Your task to perform on an android device: toggle location history Image 0: 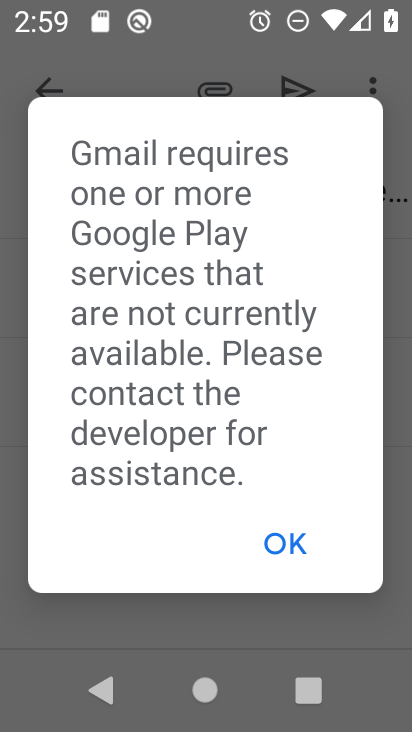
Step 0: press home button
Your task to perform on an android device: toggle location history Image 1: 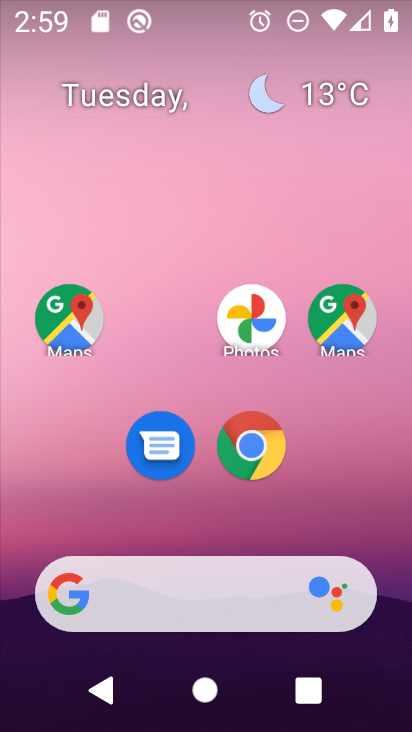
Step 1: drag from (372, 529) to (386, 203)
Your task to perform on an android device: toggle location history Image 2: 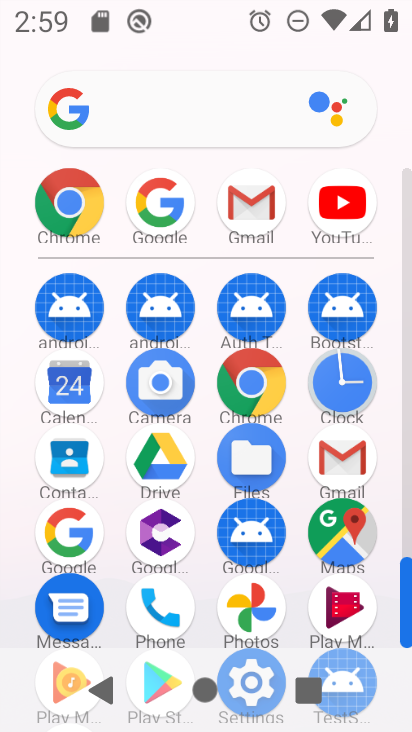
Step 2: drag from (205, 465) to (208, 233)
Your task to perform on an android device: toggle location history Image 3: 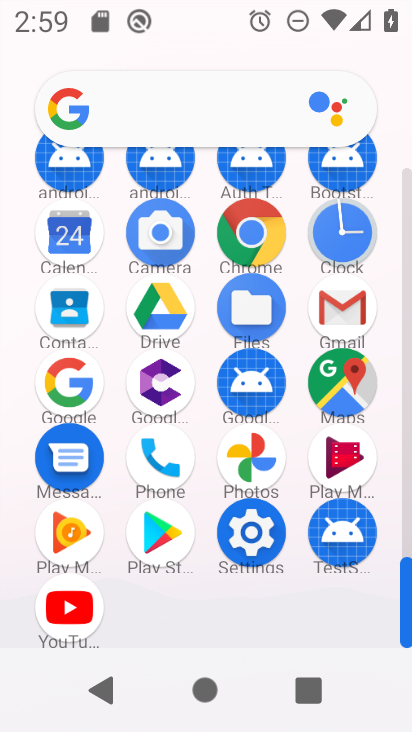
Step 3: click (262, 536)
Your task to perform on an android device: toggle location history Image 4: 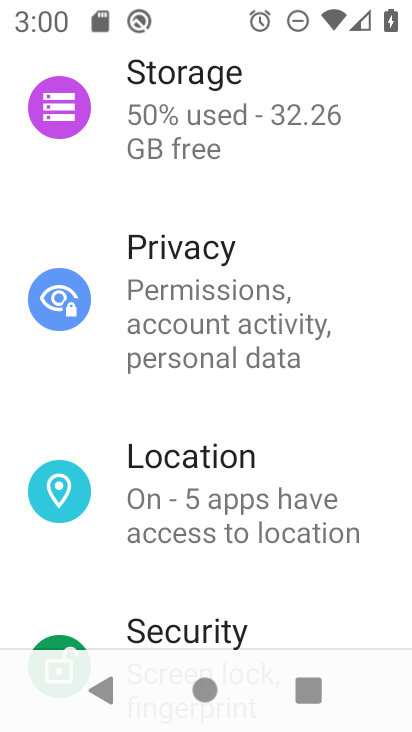
Step 4: drag from (355, 614) to (357, 503)
Your task to perform on an android device: toggle location history Image 5: 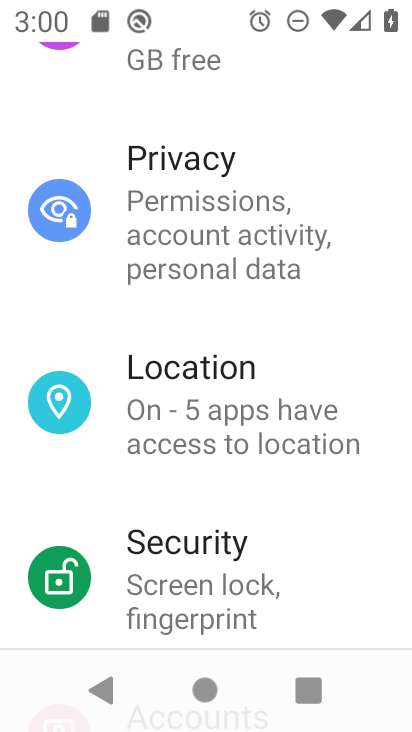
Step 5: drag from (362, 578) to (369, 451)
Your task to perform on an android device: toggle location history Image 6: 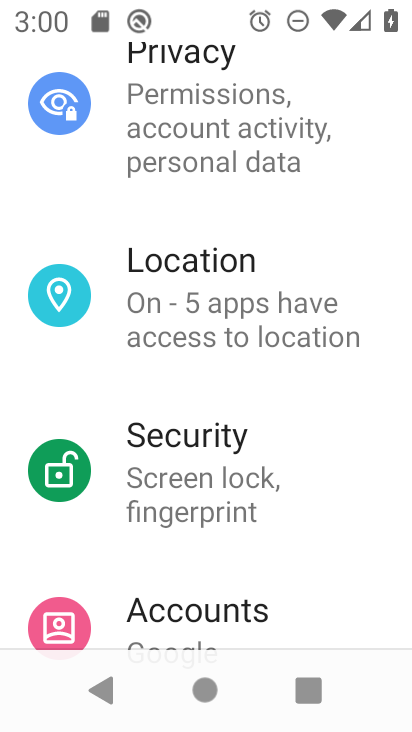
Step 6: drag from (363, 558) to (355, 472)
Your task to perform on an android device: toggle location history Image 7: 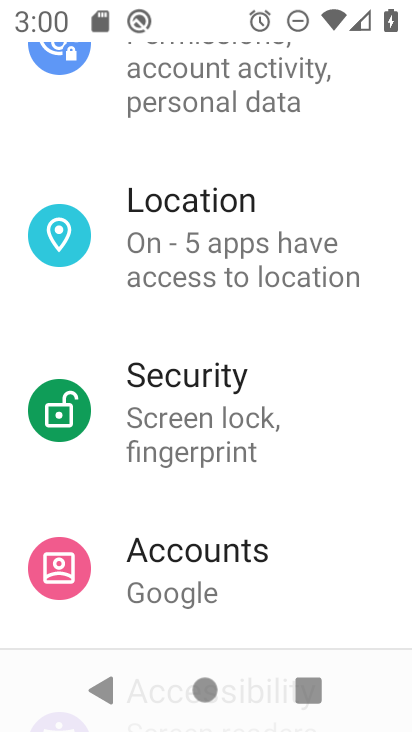
Step 7: click (253, 260)
Your task to perform on an android device: toggle location history Image 8: 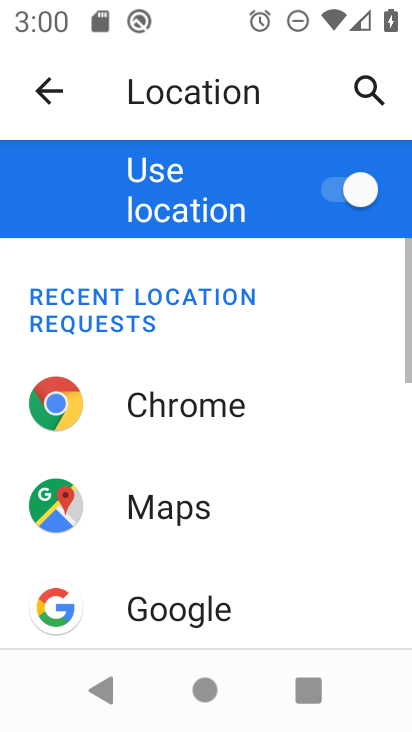
Step 8: drag from (347, 574) to (331, 437)
Your task to perform on an android device: toggle location history Image 9: 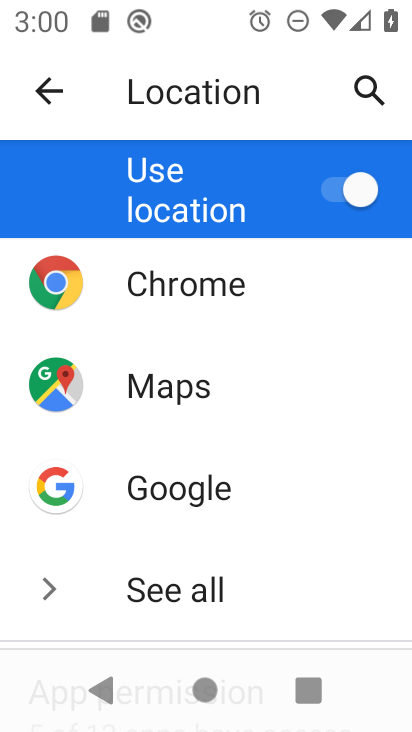
Step 9: drag from (331, 577) to (327, 506)
Your task to perform on an android device: toggle location history Image 10: 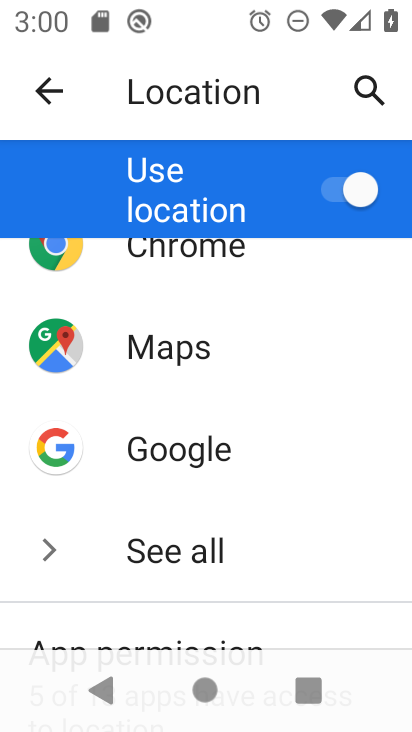
Step 10: drag from (326, 580) to (328, 470)
Your task to perform on an android device: toggle location history Image 11: 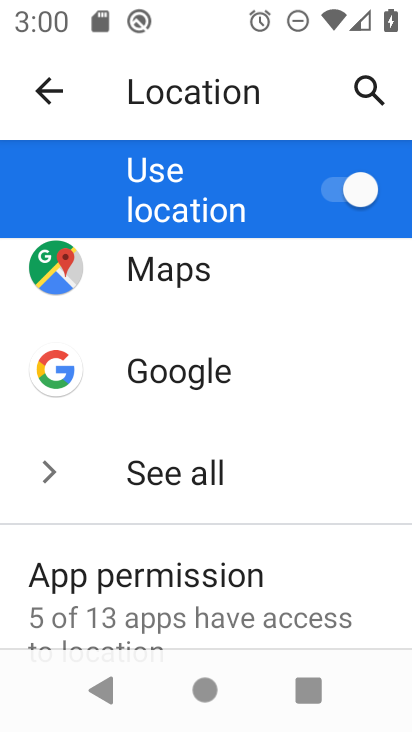
Step 11: drag from (368, 591) to (368, 459)
Your task to perform on an android device: toggle location history Image 12: 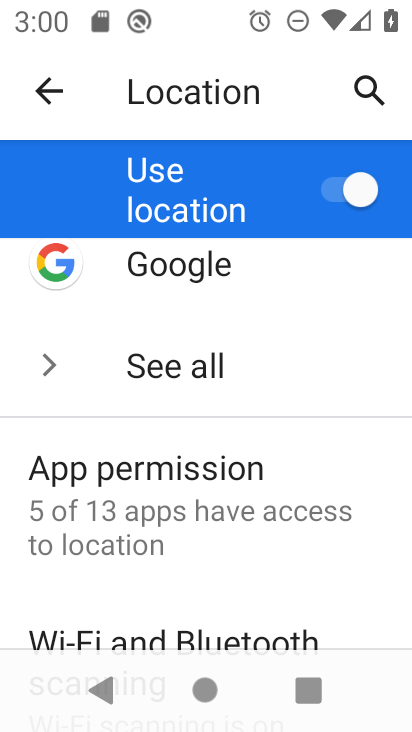
Step 12: drag from (339, 583) to (340, 473)
Your task to perform on an android device: toggle location history Image 13: 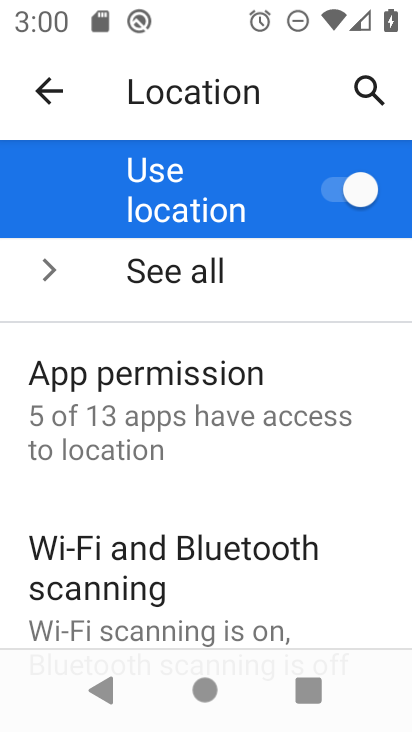
Step 13: drag from (342, 591) to (343, 492)
Your task to perform on an android device: toggle location history Image 14: 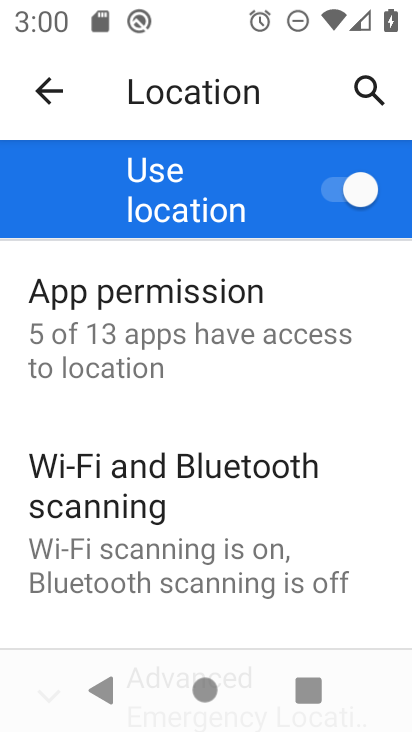
Step 14: drag from (362, 589) to (354, 466)
Your task to perform on an android device: toggle location history Image 15: 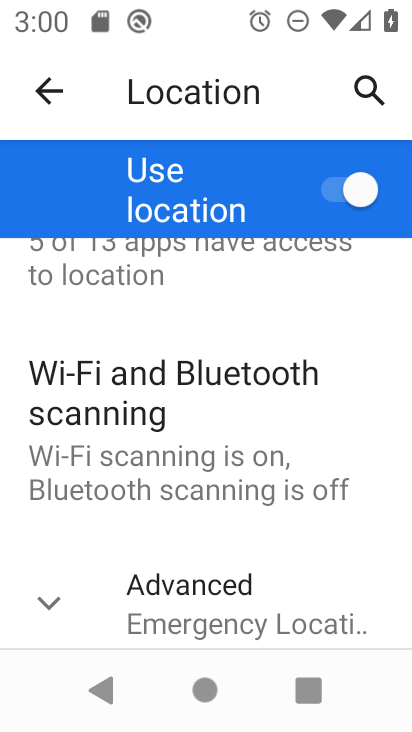
Step 15: click (210, 607)
Your task to perform on an android device: toggle location history Image 16: 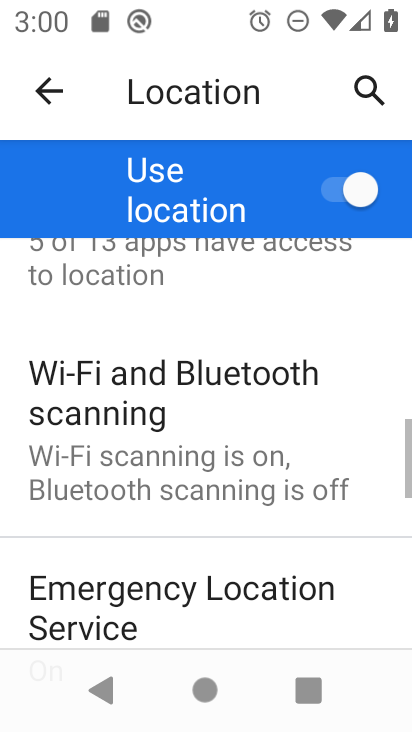
Step 16: drag from (321, 614) to (324, 479)
Your task to perform on an android device: toggle location history Image 17: 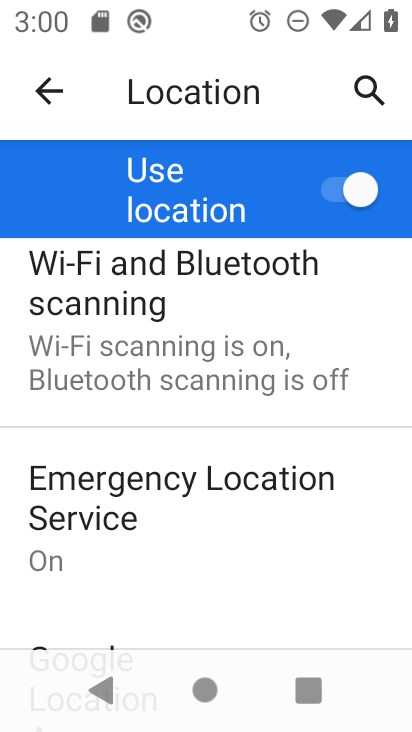
Step 17: drag from (316, 602) to (318, 491)
Your task to perform on an android device: toggle location history Image 18: 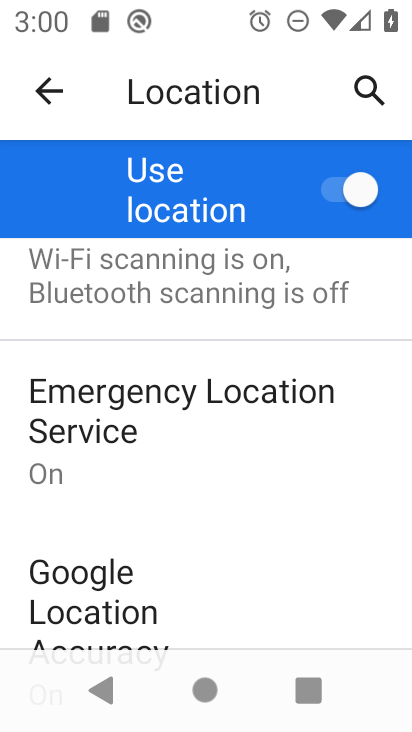
Step 18: drag from (316, 603) to (321, 503)
Your task to perform on an android device: toggle location history Image 19: 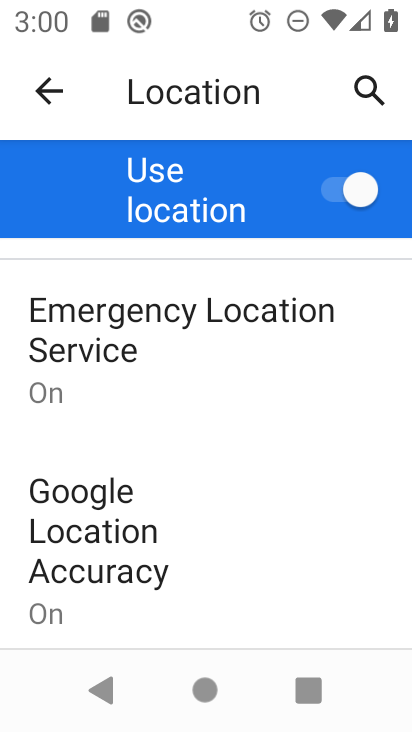
Step 19: drag from (324, 594) to (324, 497)
Your task to perform on an android device: toggle location history Image 20: 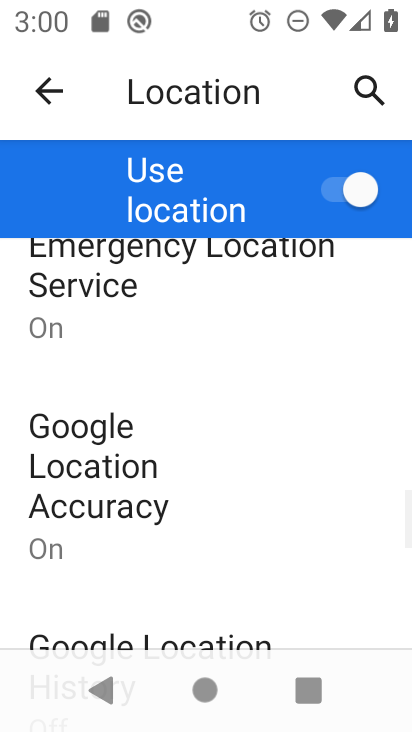
Step 20: drag from (317, 562) to (322, 470)
Your task to perform on an android device: toggle location history Image 21: 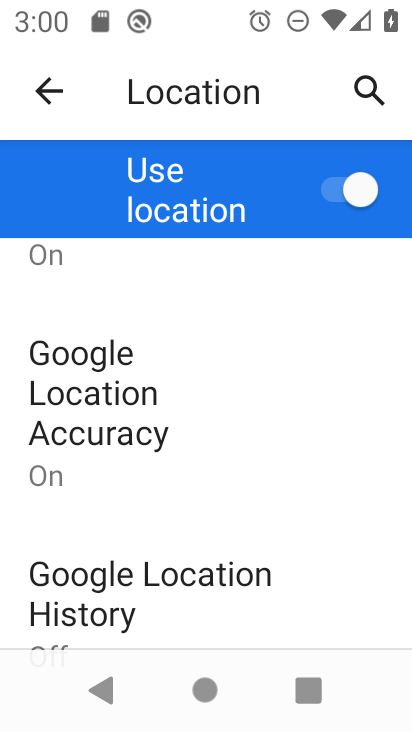
Step 21: drag from (314, 589) to (322, 500)
Your task to perform on an android device: toggle location history Image 22: 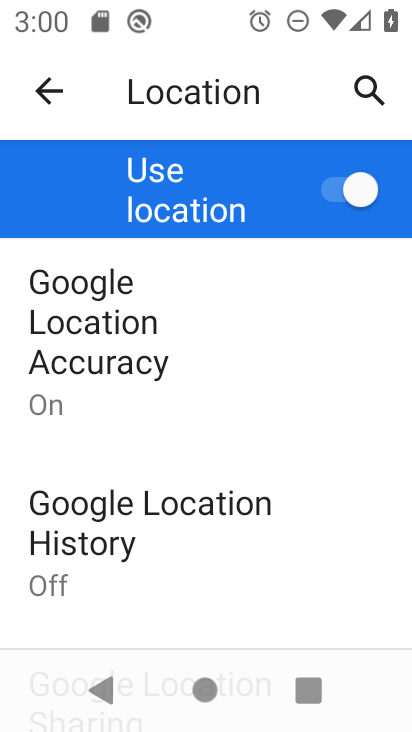
Step 22: click (159, 527)
Your task to perform on an android device: toggle location history Image 23: 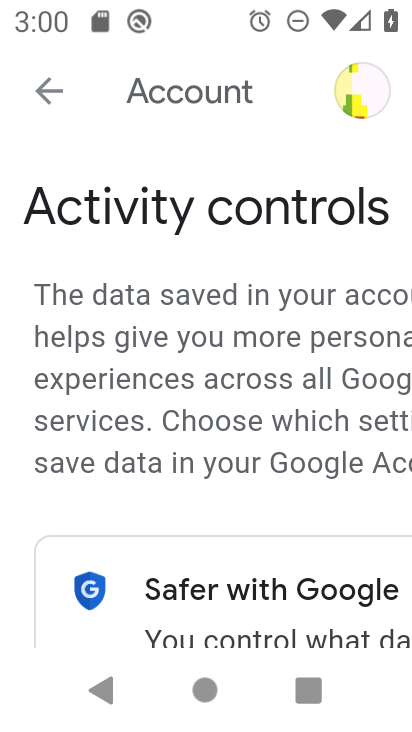
Step 23: drag from (297, 570) to (307, 388)
Your task to perform on an android device: toggle location history Image 24: 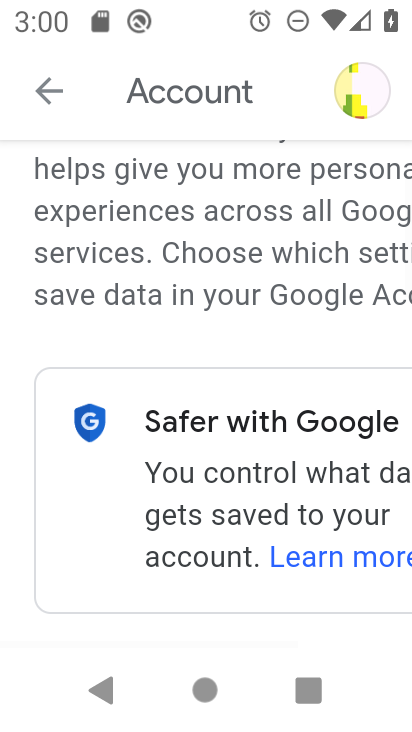
Step 24: drag from (312, 523) to (314, 405)
Your task to perform on an android device: toggle location history Image 25: 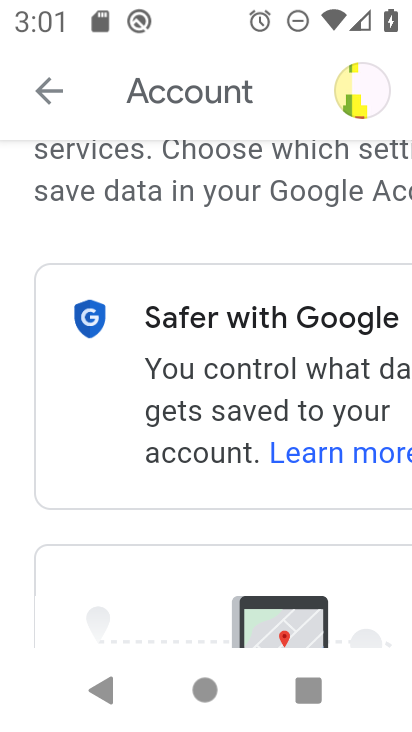
Step 25: drag from (300, 560) to (300, 454)
Your task to perform on an android device: toggle location history Image 26: 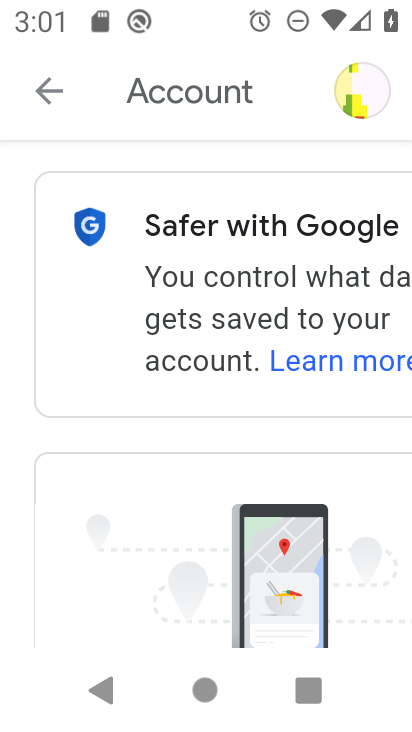
Step 26: drag from (285, 580) to (285, 452)
Your task to perform on an android device: toggle location history Image 27: 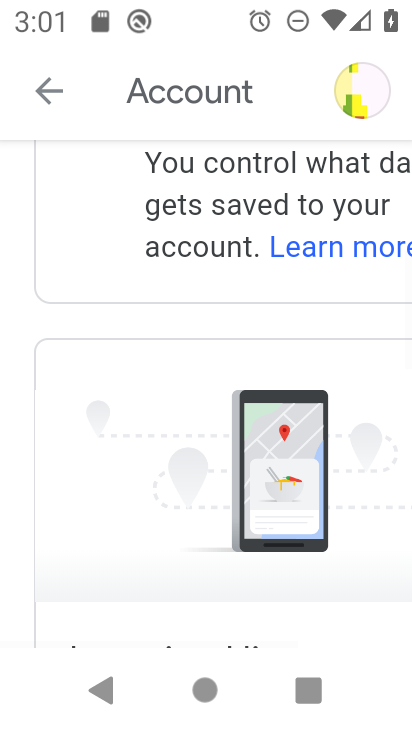
Step 27: drag from (288, 578) to (287, 455)
Your task to perform on an android device: toggle location history Image 28: 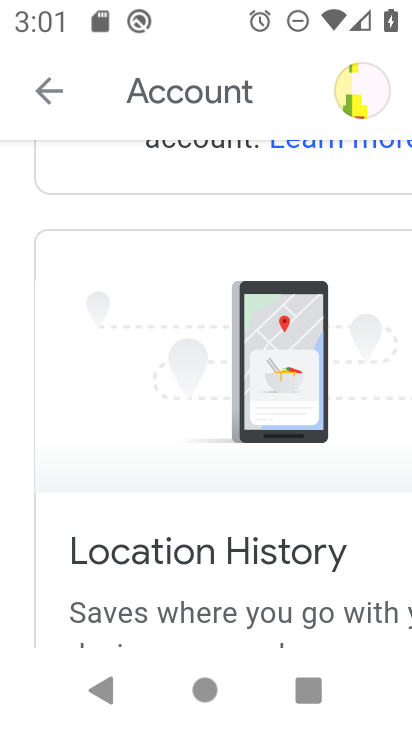
Step 28: drag from (272, 569) to (268, 479)
Your task to perform on an android device: toggle location history Image 29: 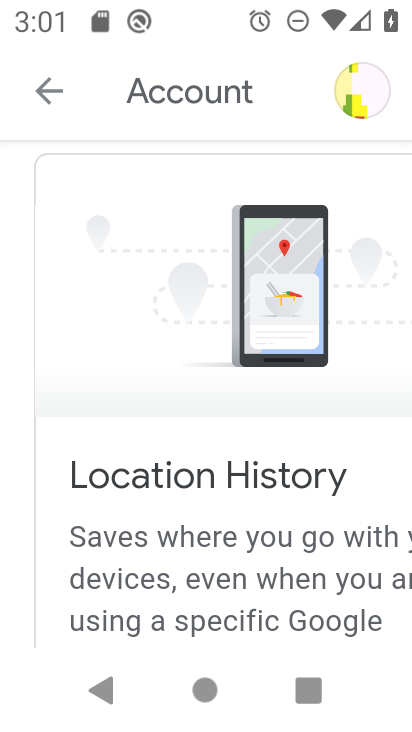
Step 29: drag from (268, 569) to (268, 463)
Your task to perform on an android device: toggle location history Image 30: 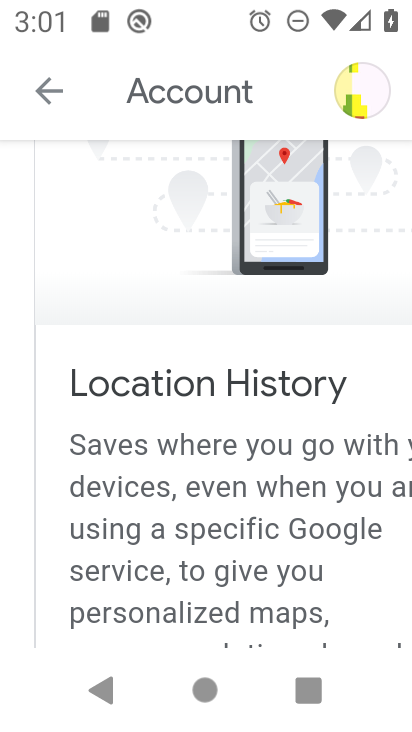
Step 30: drag from (255, 575) to (260, 455)
Your task to perform on an android device: toggle location history Image 31: 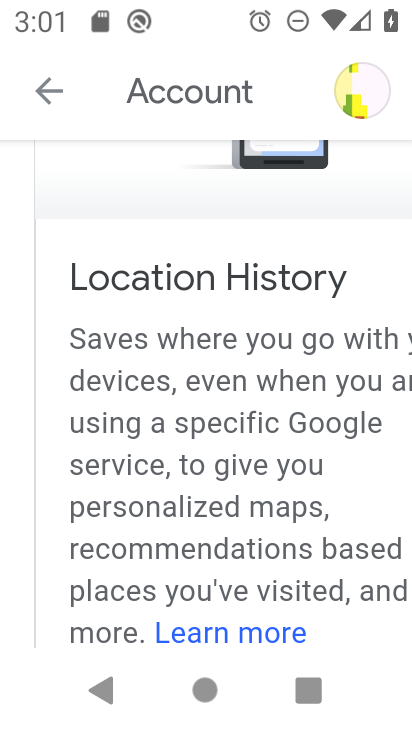
Step 31: drag from (266, 575) to (265, 453)
Your task to perform on an android device: toggle location history Image 32: 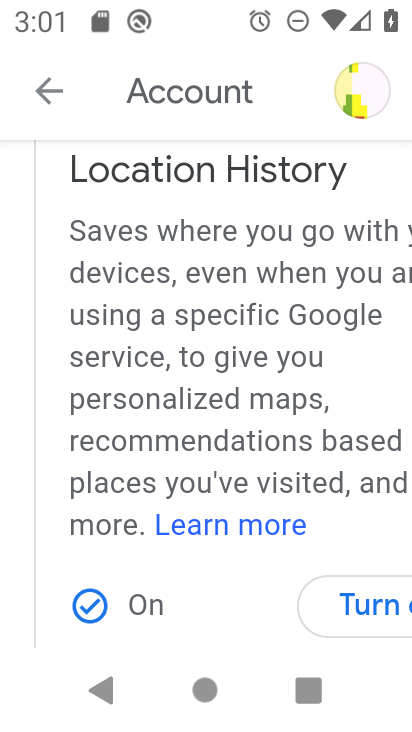
Step 32: click (372, 597)
Your task to perform on an android device: toggle location history Image 33: 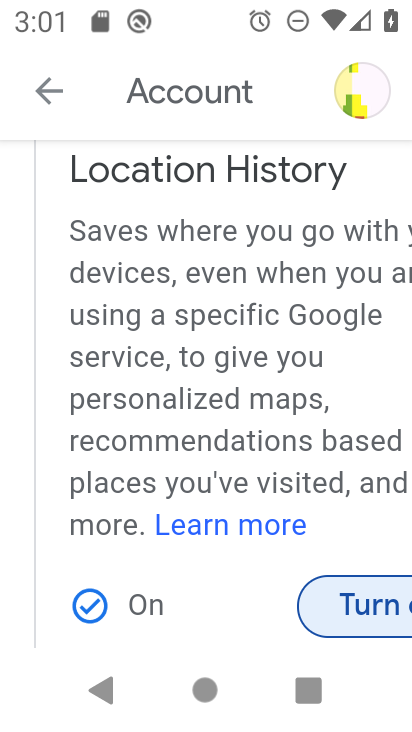
Step 33: click (358, 600)
Your task to perform on an android device: toggle location history Image 34: 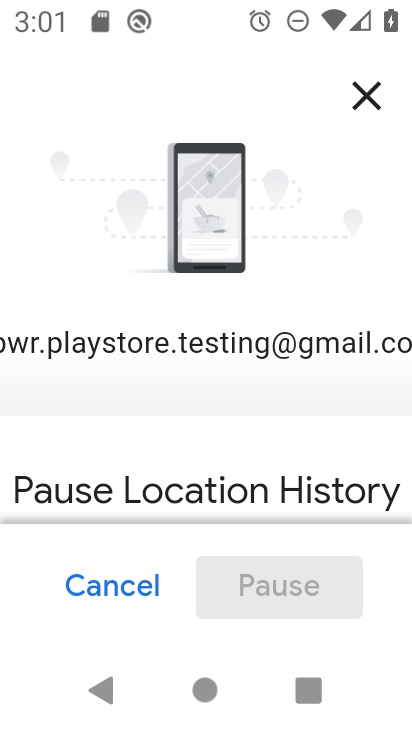
Step 34: drag from (271, 424) to (271, 314)
Your task to perform on an android device: toggle location history Image 35: 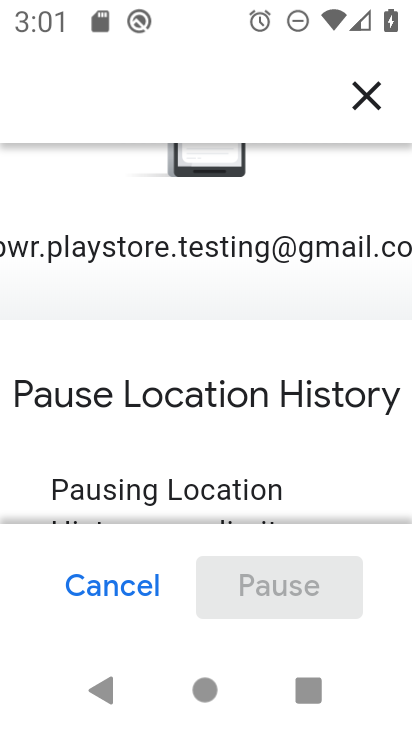
Step 35: drag from (272, 446) to (282, 355)
Your task to perform on an android device: toggle location history Image 36: 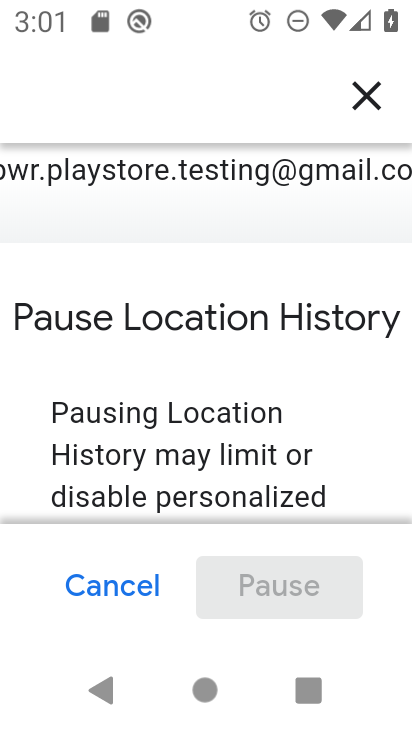
Step 36: drag from (279, 482) to (282, 384)
Your task to perform on an android device: toggle location history Image 37: 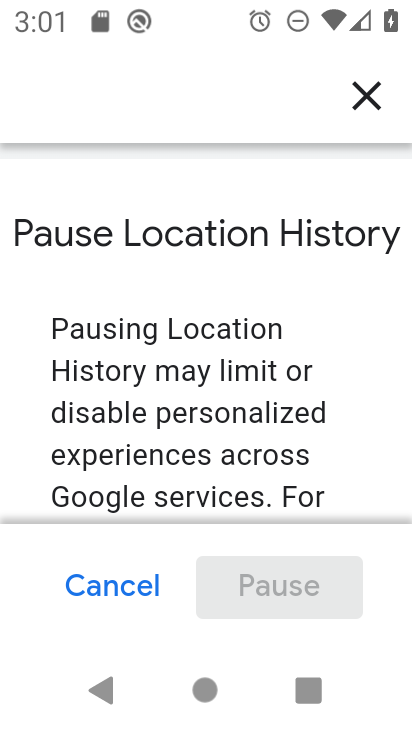
Step 37: drag from (279, 480) to (279, 369)
Your task to perform on an android device: toggle location history Image 38: 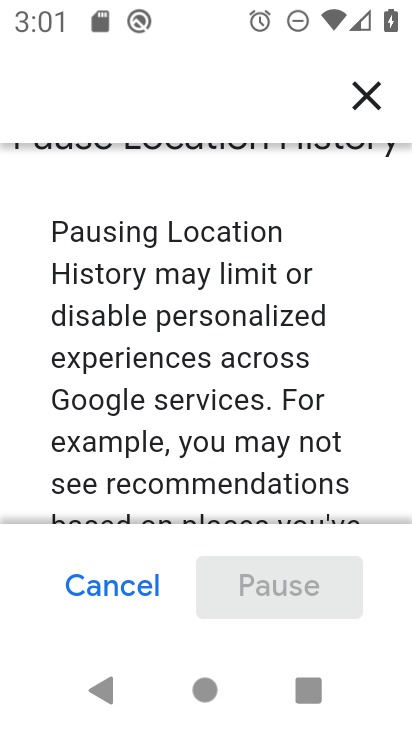
Step 38: drag from (262, 420) to (266, 373)
Your task to perform on an android device: toggle location history Image 39: 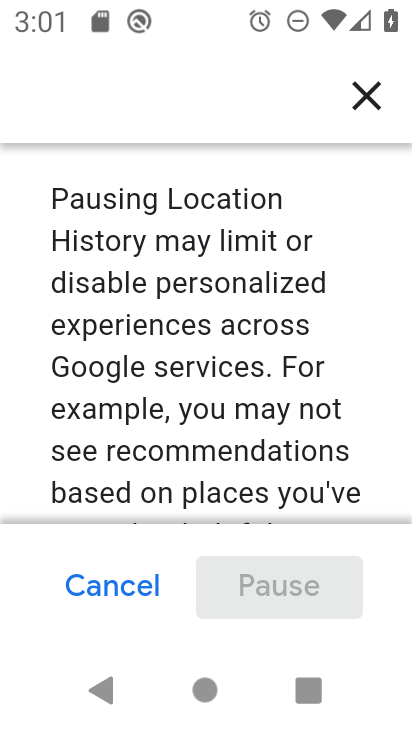
Step 39: drag from (262, 477) to (262, 334)
Your task to perform on an android device: toggle location history Image 40: 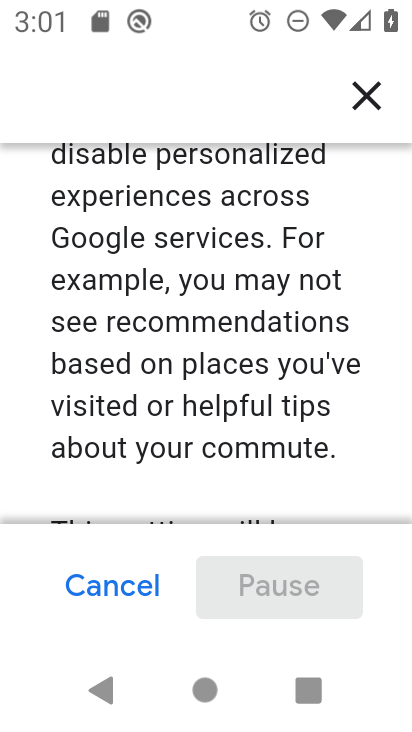
Step 40: drag from (245, 481) to (245, 357)
Your task to perform on an android device: toggle location history Image 41: 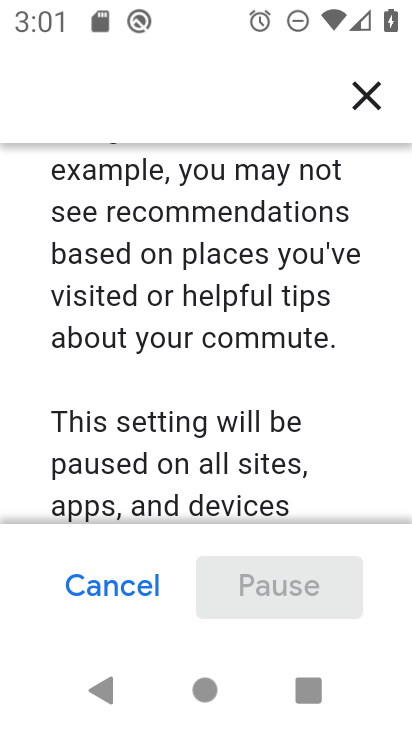
Step 41: drag from (230, 491) to (236, 360)
Your task to perform on an android device: toggle location history Image 42: 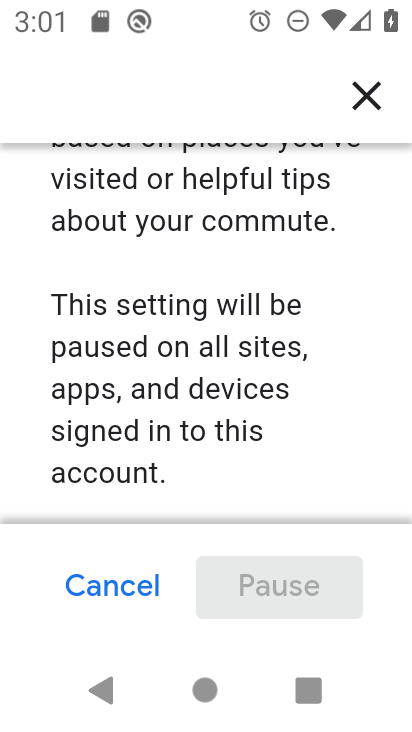
Step 42: drag from (230, 467) to (236, 341)
Your task to perform on an android device: toggle location history Image 43: 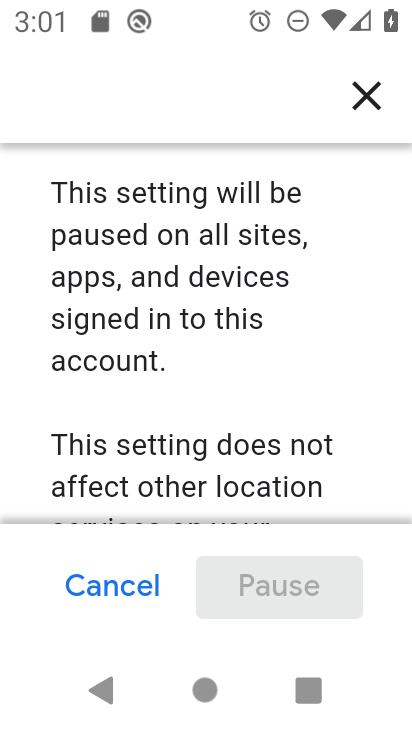
Step 43: drag from (248, 465) to (250, 361)
Your task to perform on an android device: toggle location history Image 44: 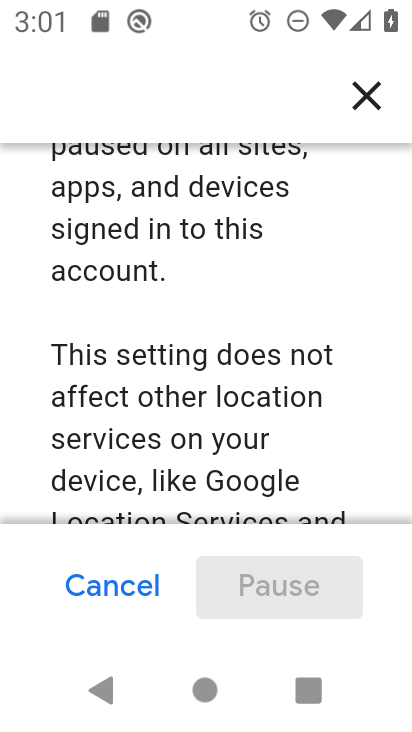
Step 44: drag from (260, 474) to (268, 365)
Your task to perform on an android device: toggle location history Image 45: 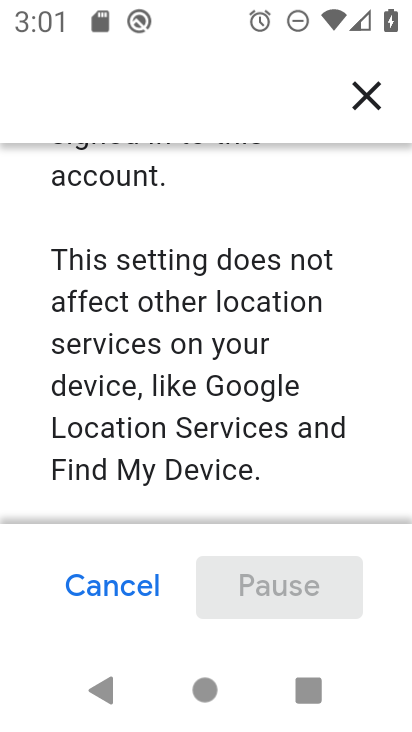
Step 45: drag from (265, 455) to (265, 370)
Your task to perform on an android device: toggle location history Image 46: 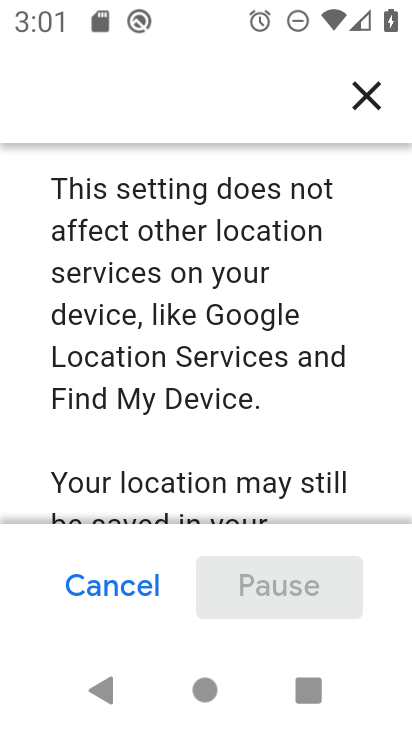
Step 46: drag from (243, 481) to (255, 370)
Your task to perform on an android device: toggle location history Image 47: 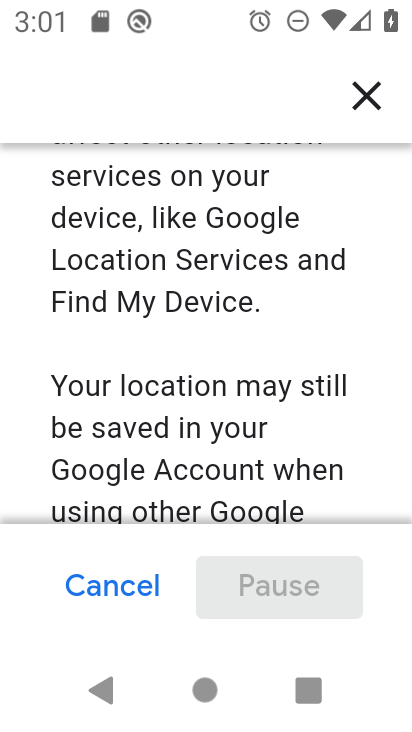
Step 47: drag from (302, 484) to (300, 374)
Your task to perform on an android device: toggle location history Image 48: 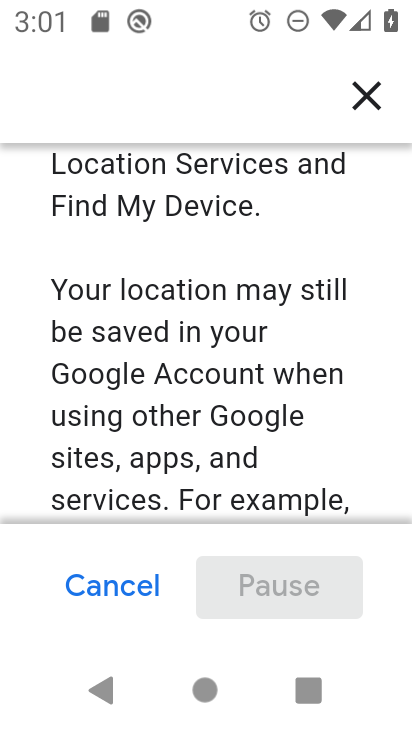
Step 48: drag from (300, 481) to (311, 363)
Your task to perform on an android device: toggle location history Image 49: 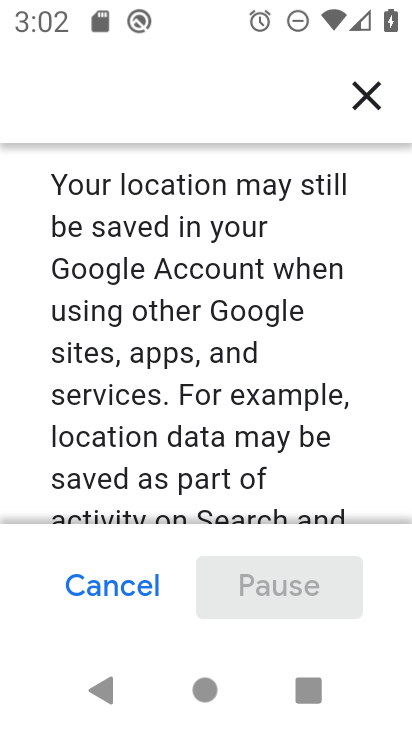
Step 49: drag from (301, 472) to (304, 366)
Your task to perform on an android device: toggle location history Image 50: 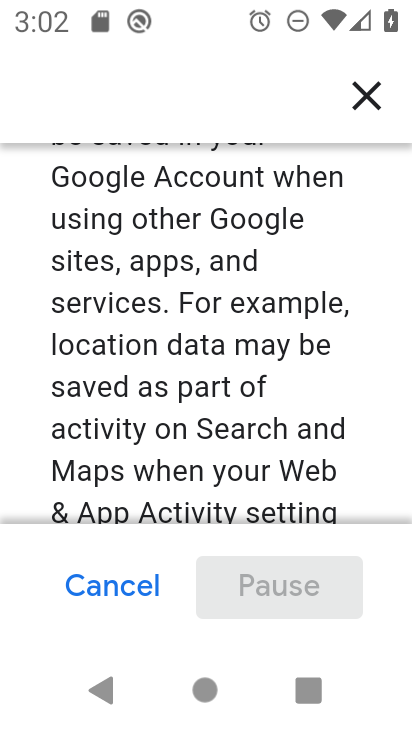
Step 50: drag from (311, 483) to (319, 363)
Your task to perform on an android device: toggle location history Image 51: 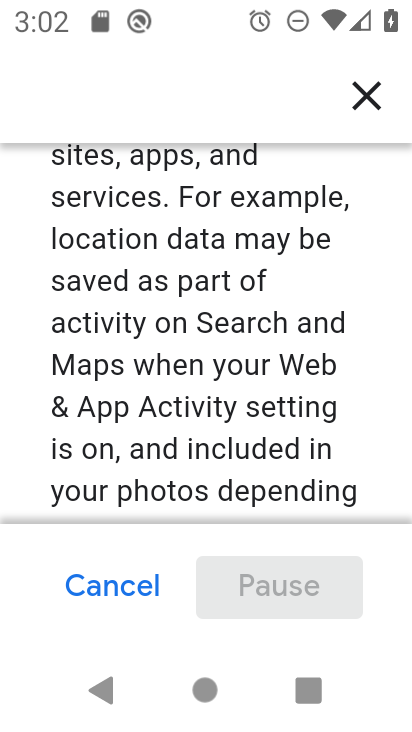
Step 51: drag from (319, 467) to (323, 354)
Your task to perform on an android device: toggle location history Image 52: 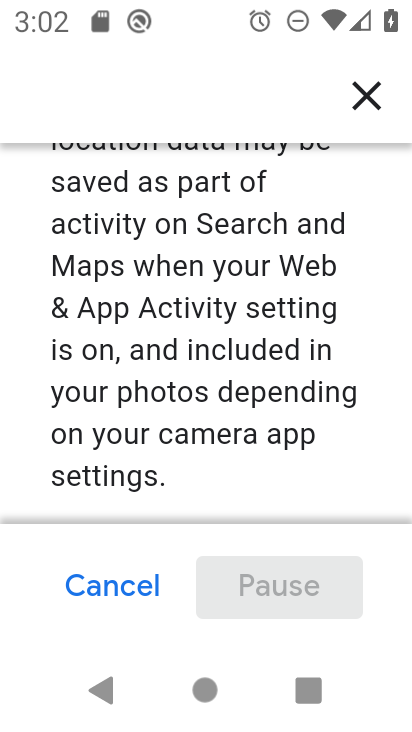
Step 52: drag from (307, 472) to (312, 373)
Your task to perform on an android device: toggle location history Image 53: 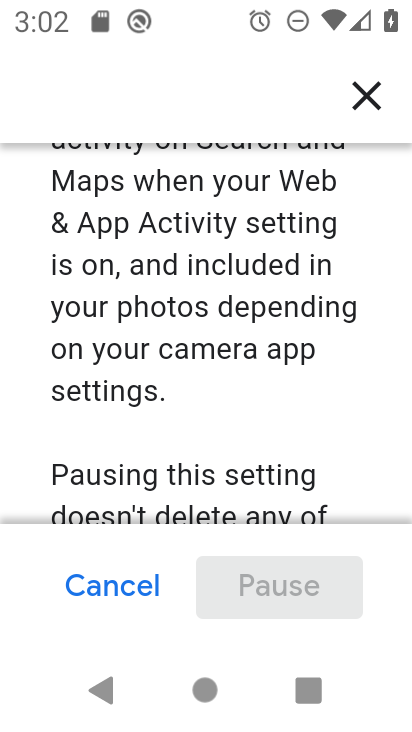
Step 53: drag from (364, 467) to (368, 334)
Your task to perform on an android device: toggle location history Image 54: 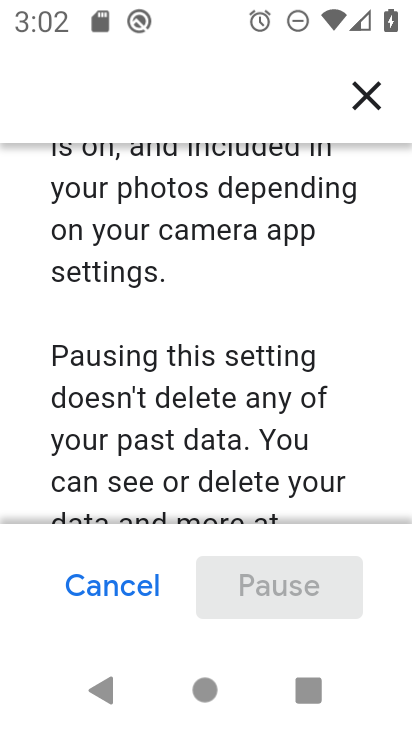
Step 54: drag from (359, 440) to (367, 301)
Your task to perform on an android device: toggle location history Image 55: 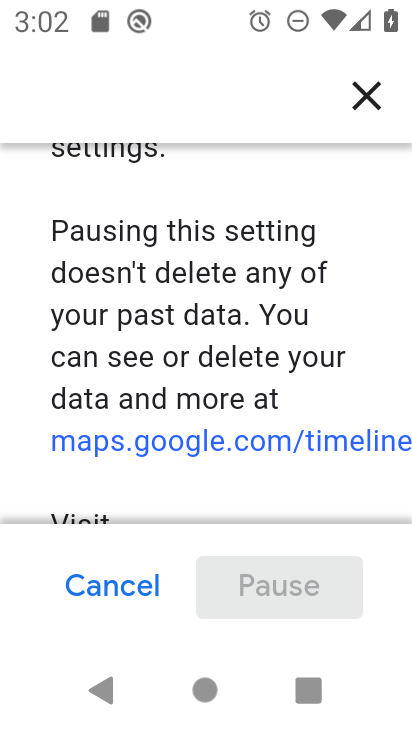
Step 55: drag from (349, 479) to (355, 341)
Your task to perform on an android device: toggle location history Image 56: 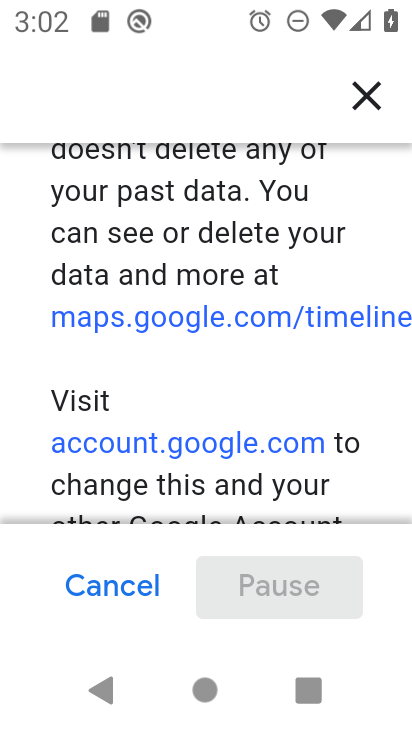
Step 56: drag from (357, 469) to (362, 341)
Your task to perform on an android device: toggle location history Image 57: 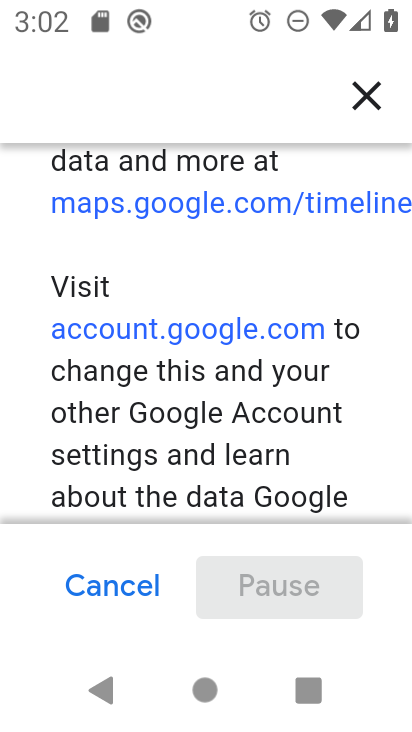
Step 57: drag from (354, 467) to (367, 348)
Your task to perform on an android device: toggle location history Image 58: 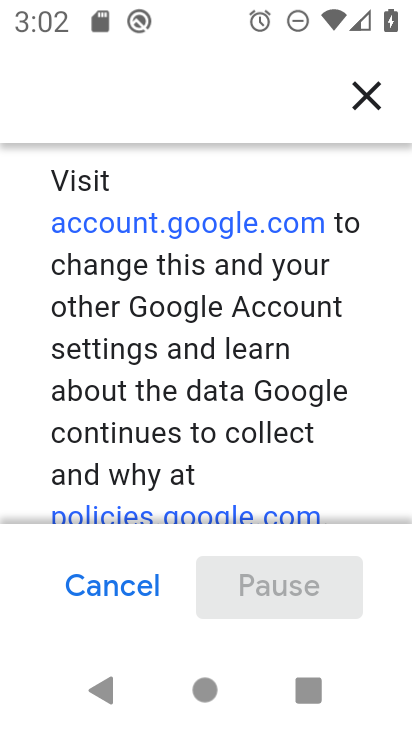
Step 58: drag from (364, 469) to (365, 328)
Your task to perform on an android device: toggle location history Image 59: 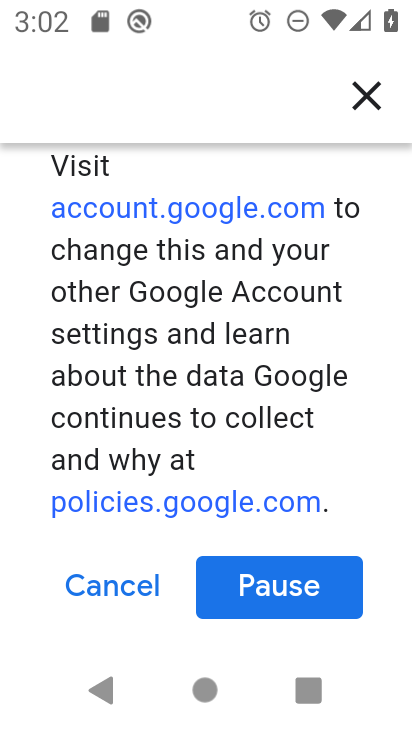
Step 59: click (295, 600)
Your task to perform on an android device: toggle location history Image 60: 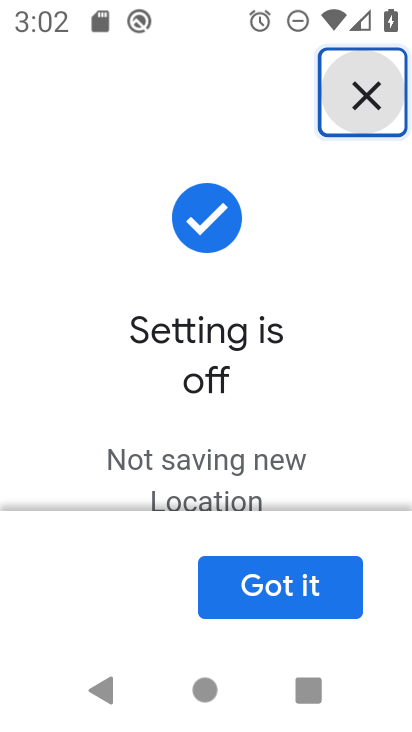
Step 60: task complete